Your task to perform on an android device: What's the weather today? Image 0: 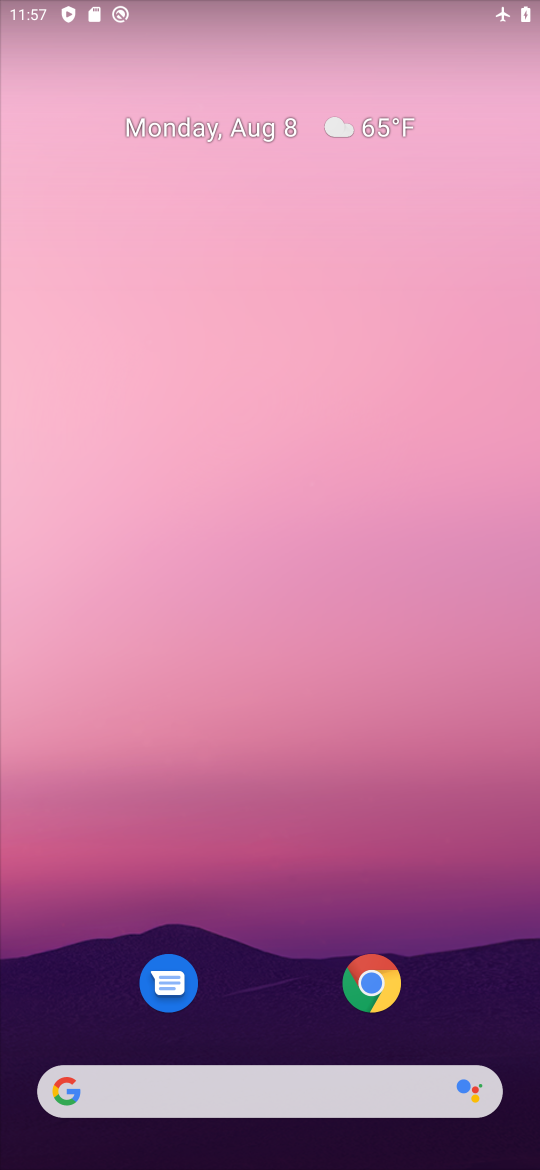
Step 0: click (311, 1080)
Your task to perform on an android device: What's the weather today? Image 1: 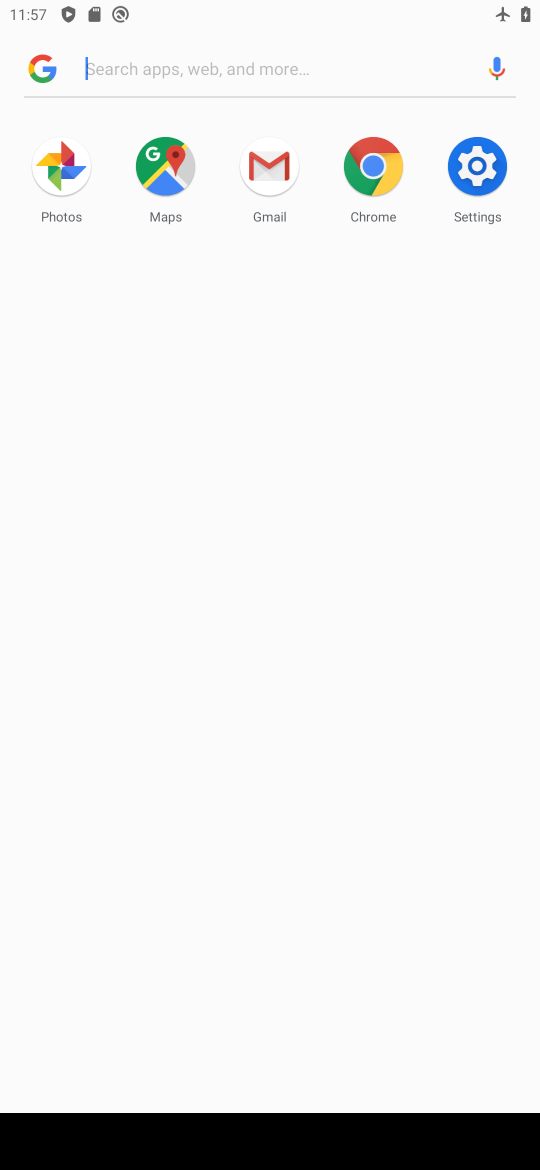
Step 1: type "weather"
Your task to perform on an android device: What's the weather today? Image 2: 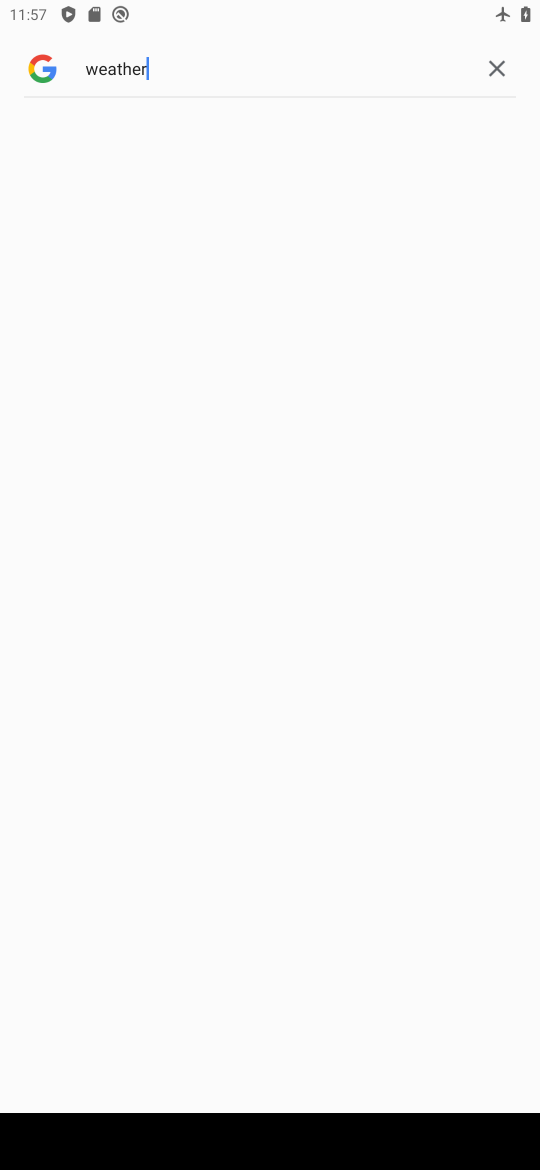
Step 2: task complete